Your task to perform on an android device: What's on my calendar today? Image 0: 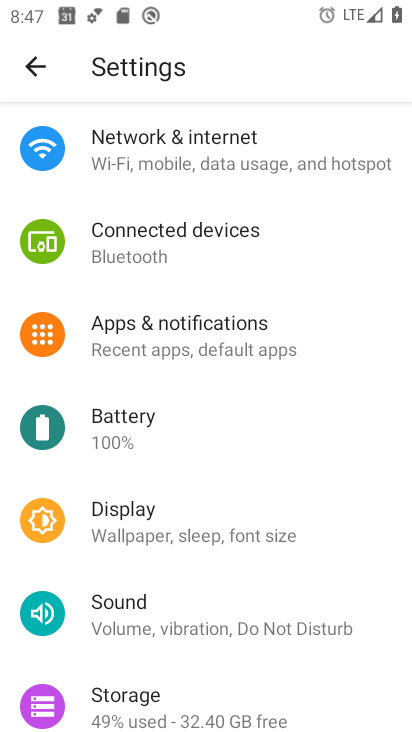
Step 0: press home button
Your task to perform on an android device: What's on my calendar today? Image 1: 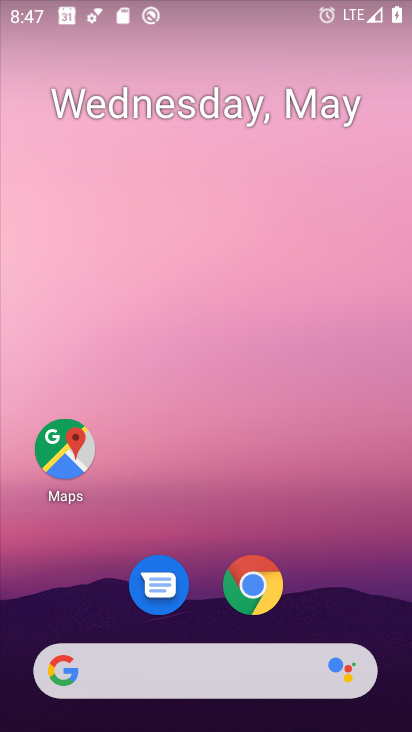
Step 1: drag from (309, 566) to (255, 38)
Your task to perform on an android device: What's on my calendar today? Image 2: 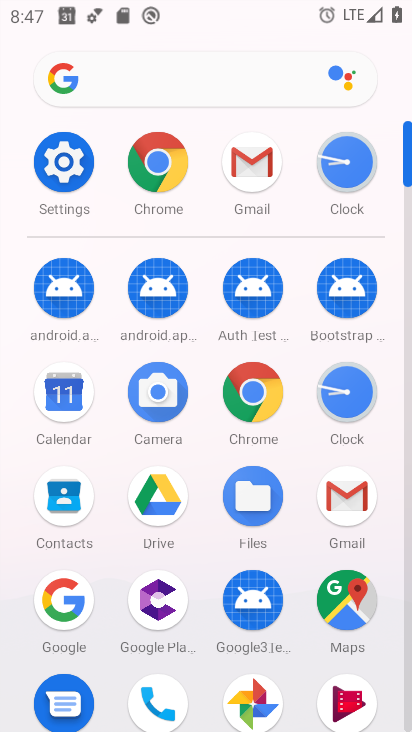
Step 2: click (72, 403)
Your task to perform on an android device: What's on my calendar today? Image 3: 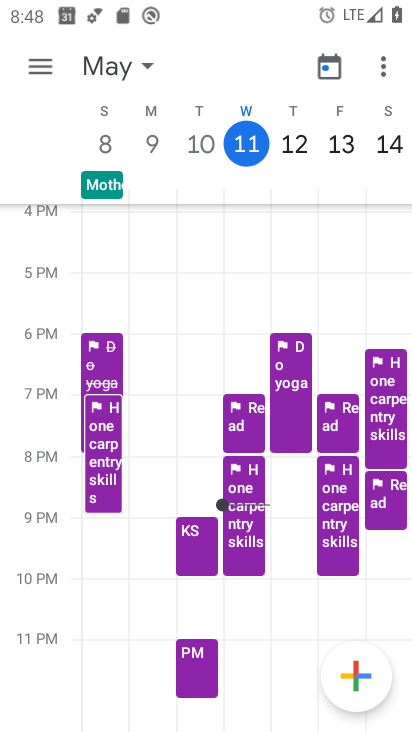
Step 3: click (244, 145)
Your task to perform on an android device: What's on my calendar today? Image 4: 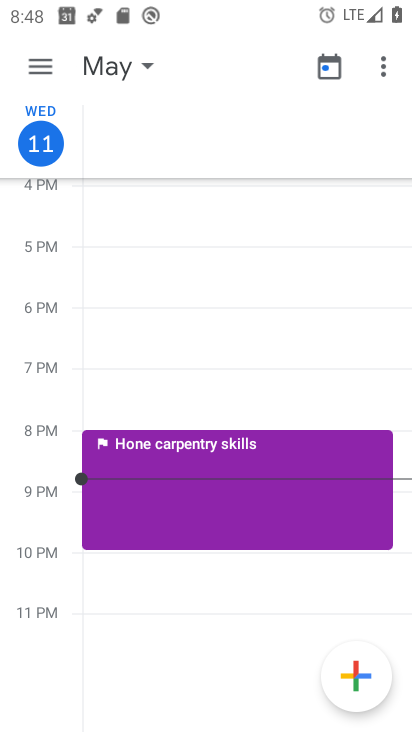
Step 4: task complete